Your task to perform on an android device: show emergency info Image 0: 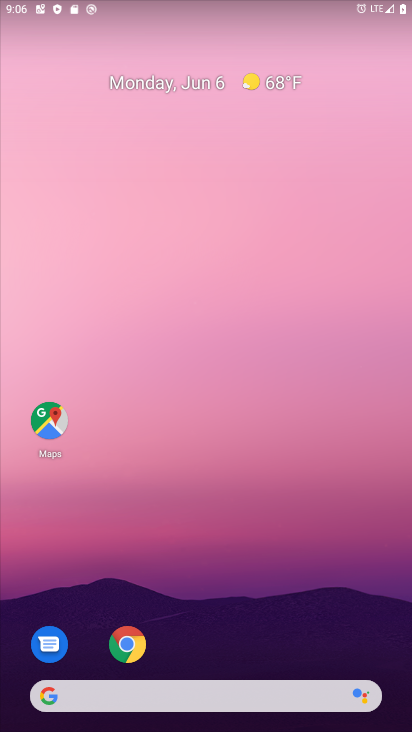
Step 0: drag from (256, 717) to (264, 229)
Your task to perform on an android device: show emergency info Image 1: 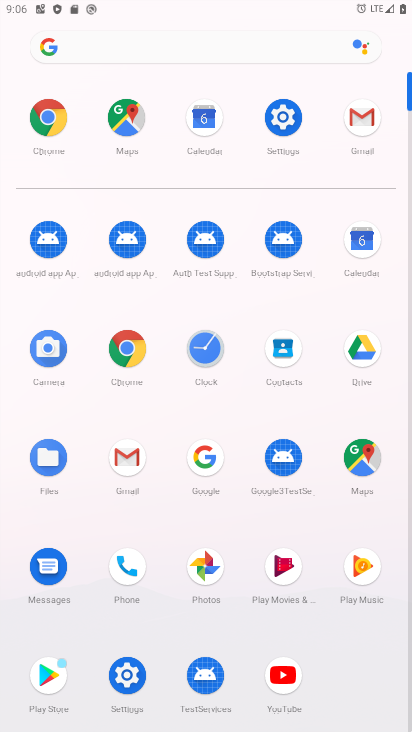
Step 1: click (286, 135)
Your task to perform on an android device: show emergency info Image 2: 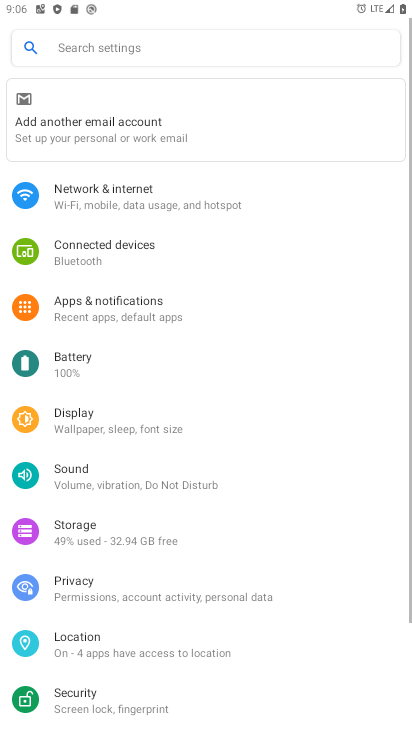
Step 2: click (117, 43)
Your task to perform on an android device: show emergency info Image 3: 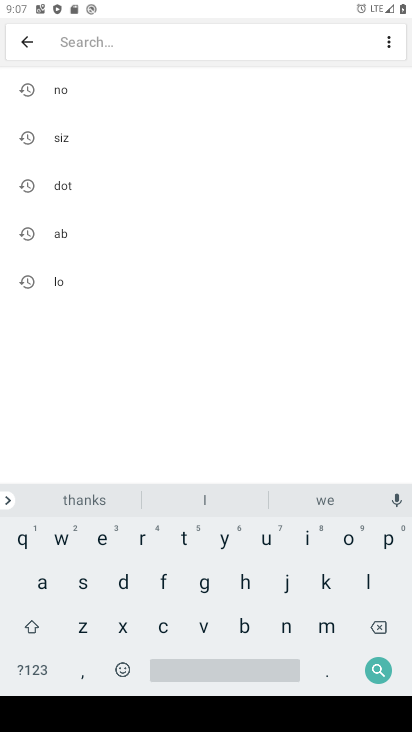
Step 3: click (84, 534)
Your task to perform on an android device: show emergency info Image 4: 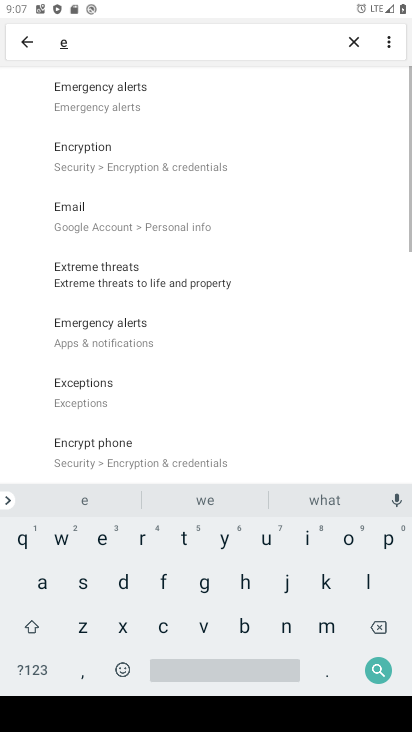
Step 4: click (318, 624)
Your task to perform on an android device: show emergency info Image 5: 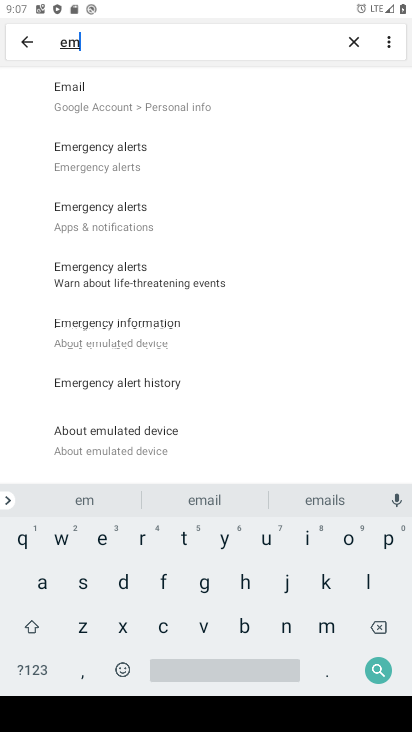
Step 5: click (103, 540)
Your task to perform on an android device: show emergency info Image 6: 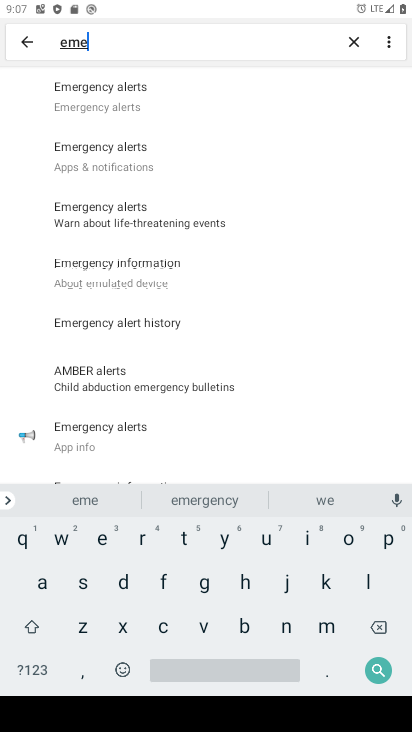
Step 6: click (183, 492)
Your task to perform on an android device: show emergency info Image 7: 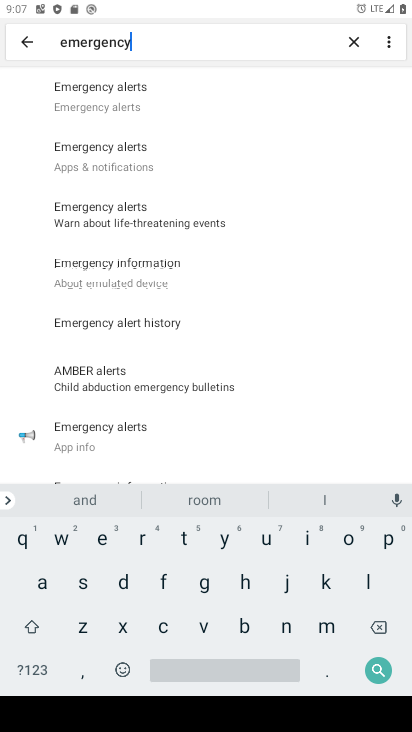
Step 7: click (300, 540)
Your task to perform on an android device: show emergency info Image 8: 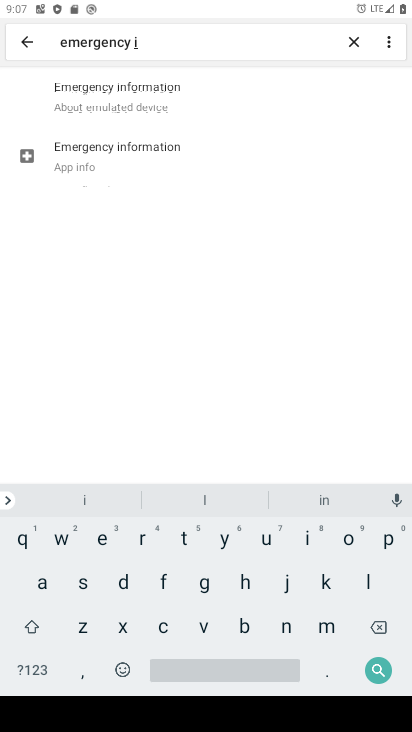
Step 8: click (154, 105)
Your task to perform on an android device: show emergency info Image 9: 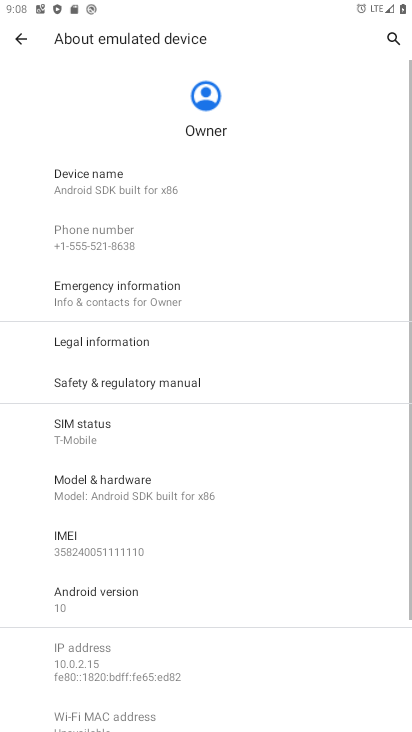
Step 9: task complete